Your task to perform on an android device: change the upload size in google photos Image 0: 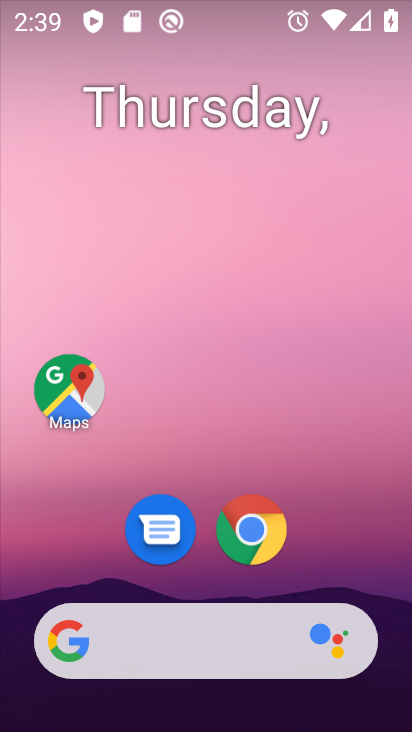
Step 0: drag from (208, 708) to (310, 98)
Your task to perform on an android device: change the upload size in google photos Image 1: 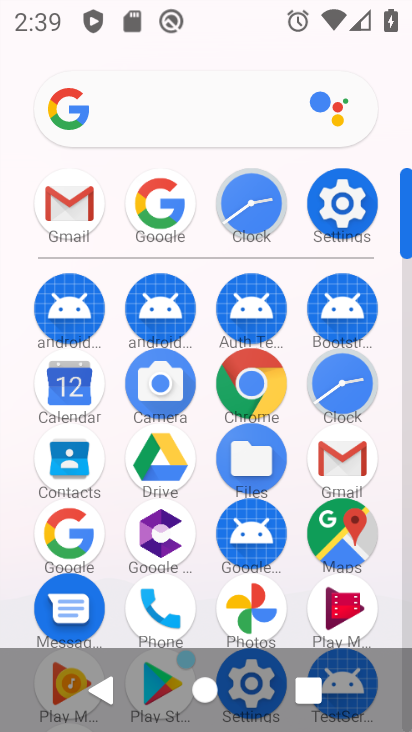
Step 1: click (250, 616)
Your task to perform on an android device: change the upload size in google photos Image 2: 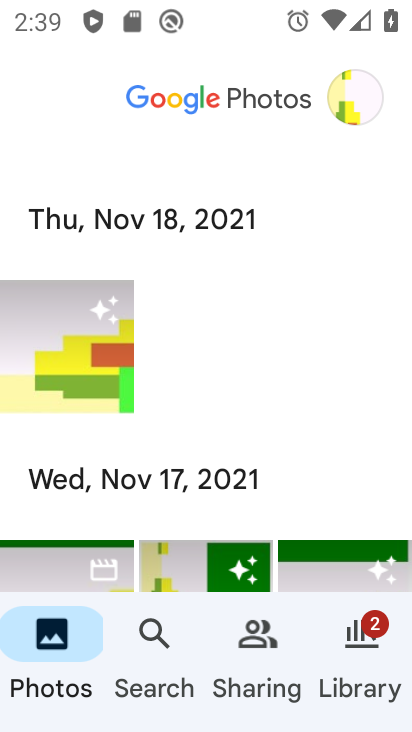
Step 2: click (348, 81)
Your task to perform on an android device: change the upload size in google photos Image 3: 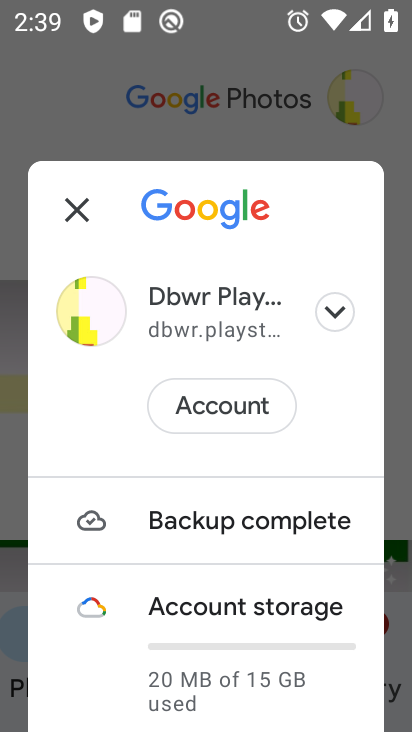
Step 3: click (238, 308)
Your task to perform on an android device: change the upload size in google photos Image 4: 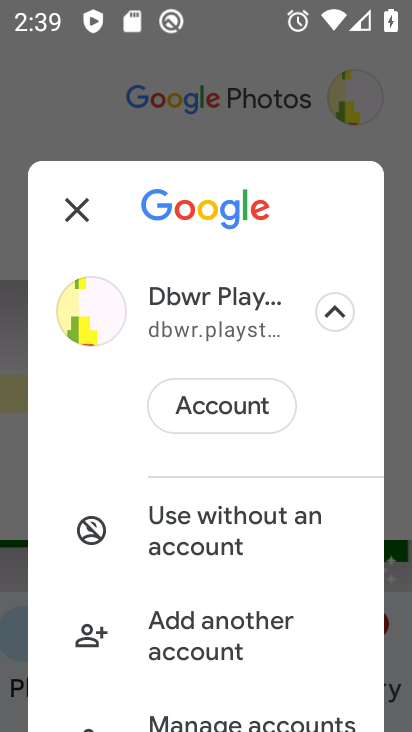
Step 4: drag from (289, 685) to (221, 31)
Your task to perform on an android device: change the upload size in google photos Image 5: 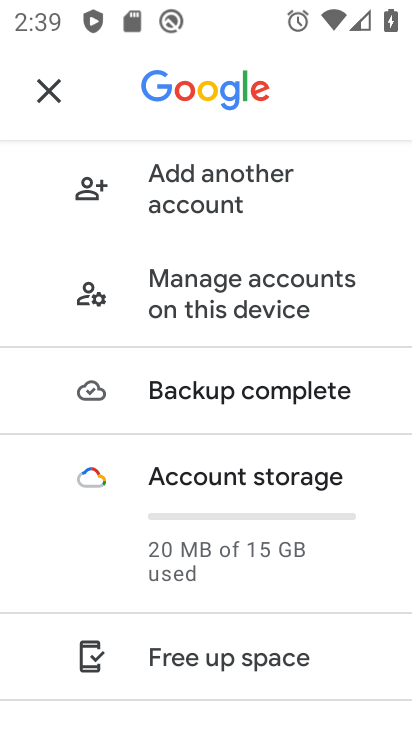
Step 5: drag from (273, 686) to (273, 205)
Your task to perform on an android device: change the upload size in google photos Image 6: 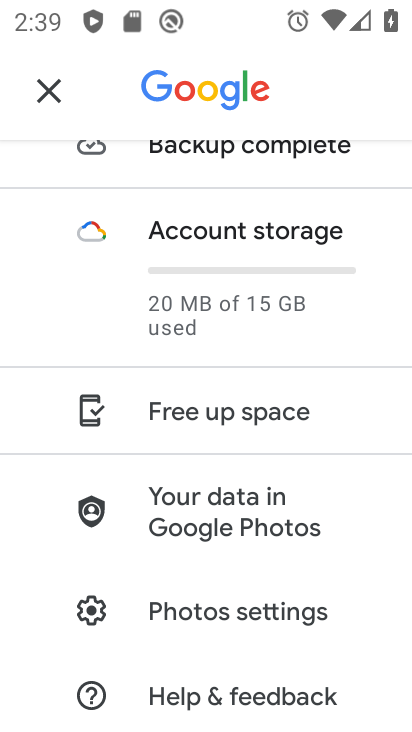
Step 6: click (263, 625)
Your task to perform on an android device: change the upload size in google photos Image 7: 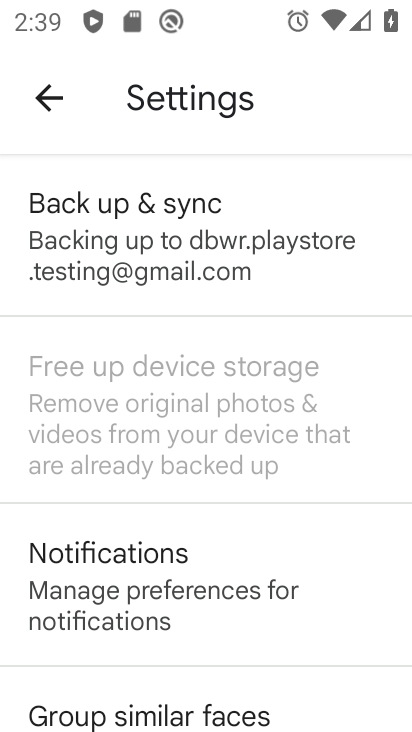
Step 7: drag from (263, 626) to (226, 160)
Your task to perform on an android device: change the upload size in google photos Image 8: 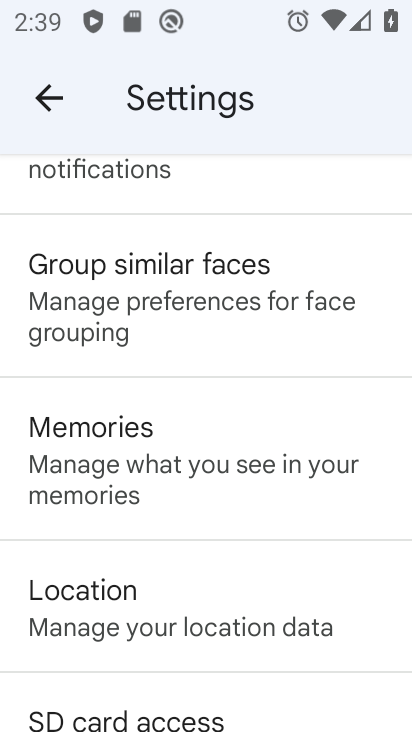
Step 8: drag from (235, 665) to (211, 238)
Your task to perform on an android device: change the upload size in google photos Image 9: 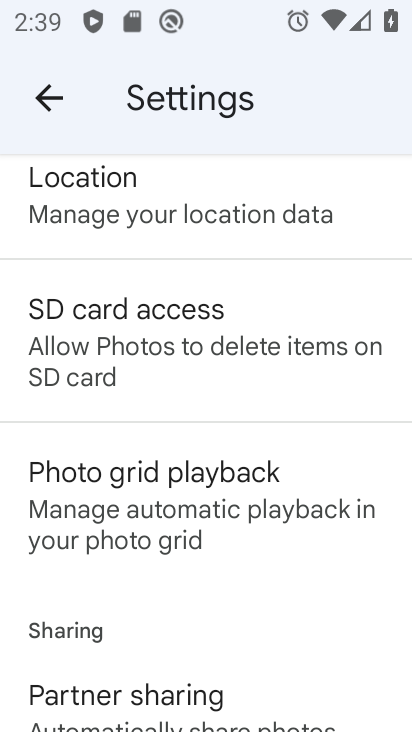
Step 9: drag from (268, 680) to (329, 238)
Your task to perform on an android device: change the upload size in google photos Image 10: 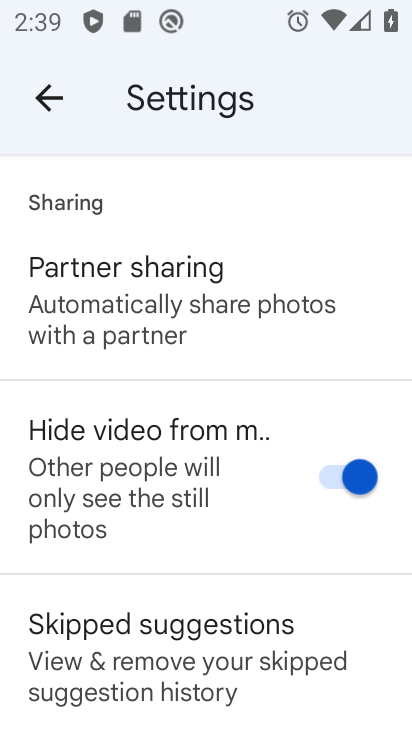
Step 10: drag from (228, 270) to (161, 729)
Your task to perform on an android device: change the upload size in google photos Image 11: 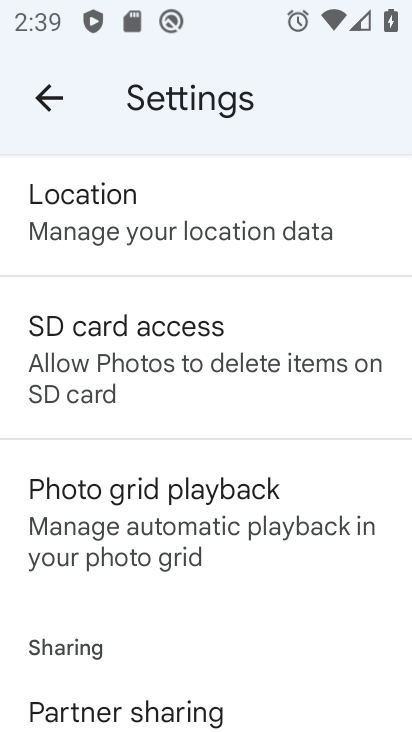
Step 11: drag from (270, 298) to (279, 647)
Your task to perform on an android device: change the upload size in google photos Image 12: 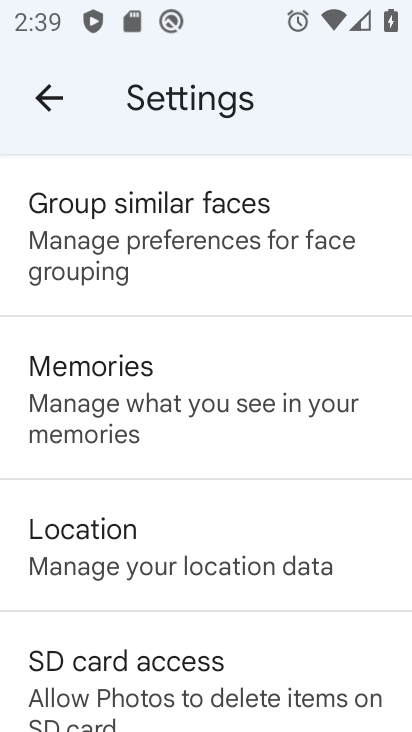
Step 12: drag from (224, 286) to (268, 672)
Your task to perform on an android device: change the upload size in google photos Image 13: 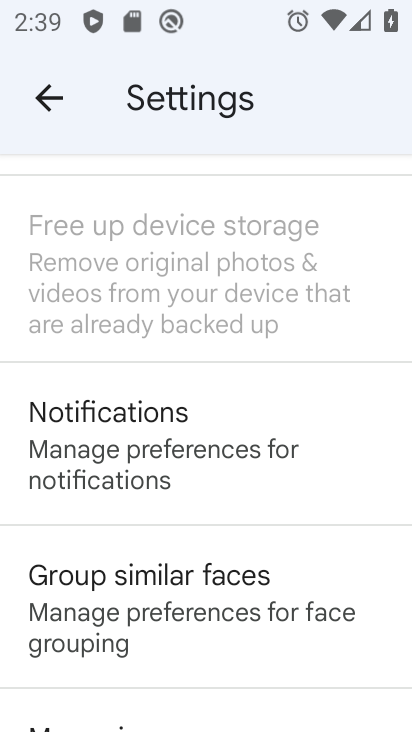
Step 13: drag from (263, 273) to (276, 712)
Your task to perform on an android device: change the upload size in google photos Image 14: 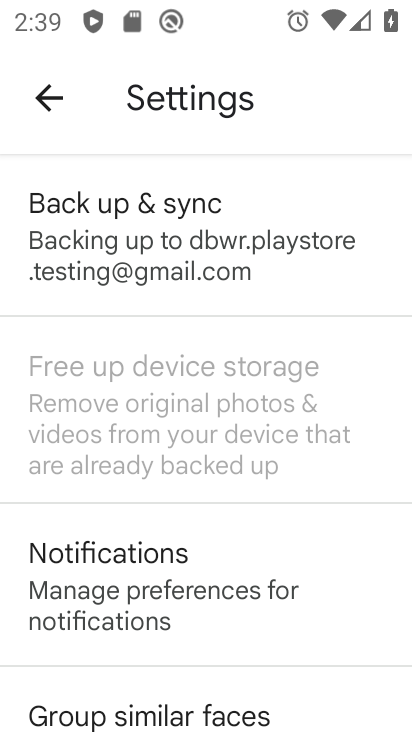
Step 14: click (239, 269)
Your task to perform on an android device: change the upload size in google photos Image 15: 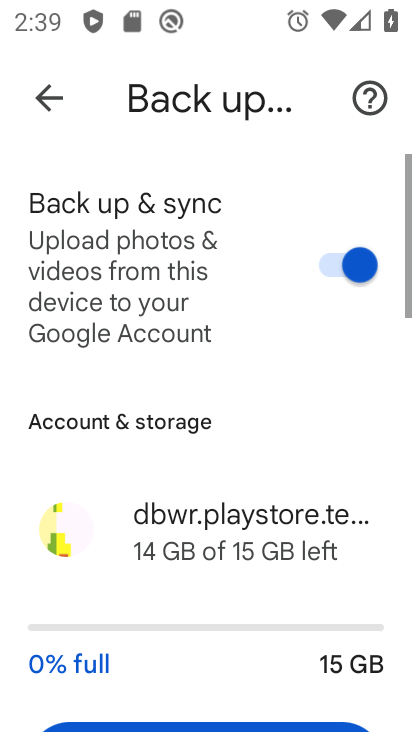
Step 15: drag from (195, 622) to (195, 136)
Your task to perform on an android device: change the upload size in google photos Image 16: 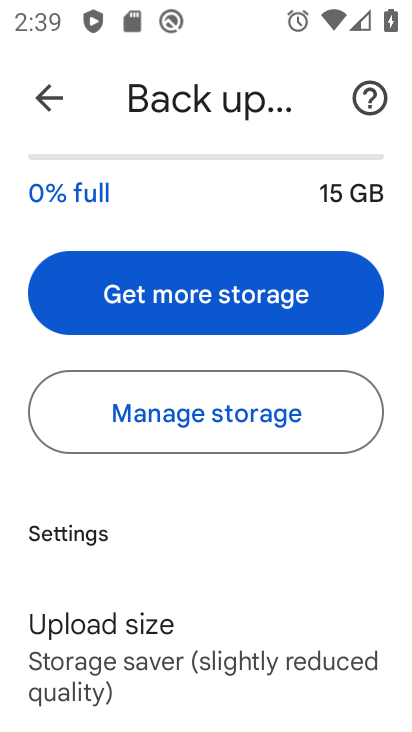
Step 16: click (159, 675)
Your task to perform on an android device: change the upload size in google photos Image 17: 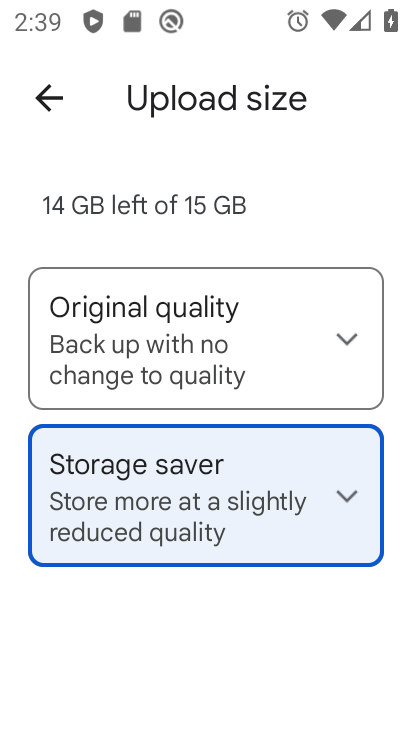
Step 17: click (220, 335)
Your task to perform on an android device: change the upload size in google photos Image 18: 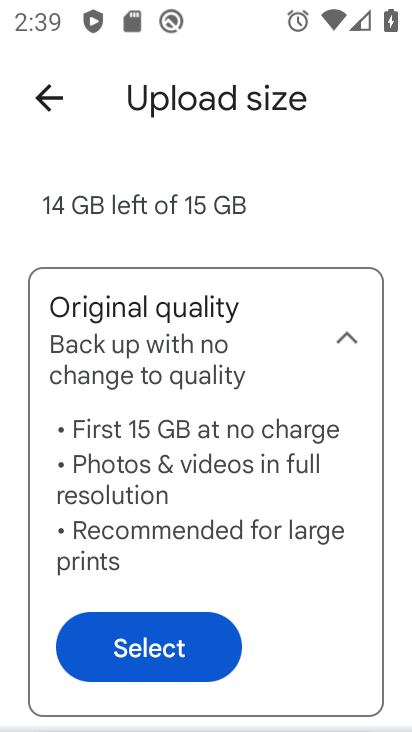
Step 18: task complete